Your task to perform on an android device: Open accessibility settings Image 0: 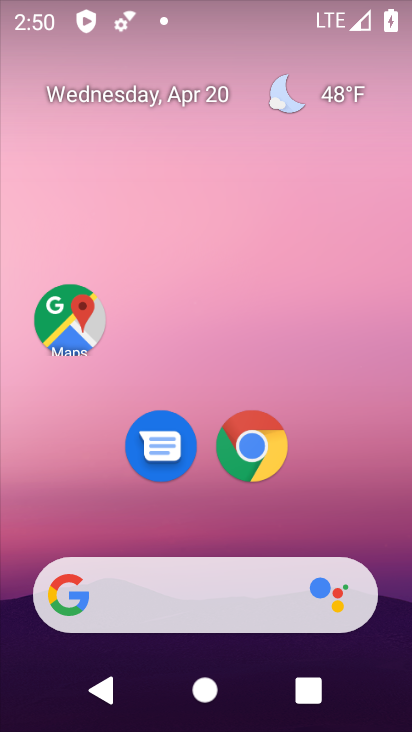
Step 0: drag from (314, 508) to (345, 83)
Your task to perform on an android device: Open accessibility settings Image 1: 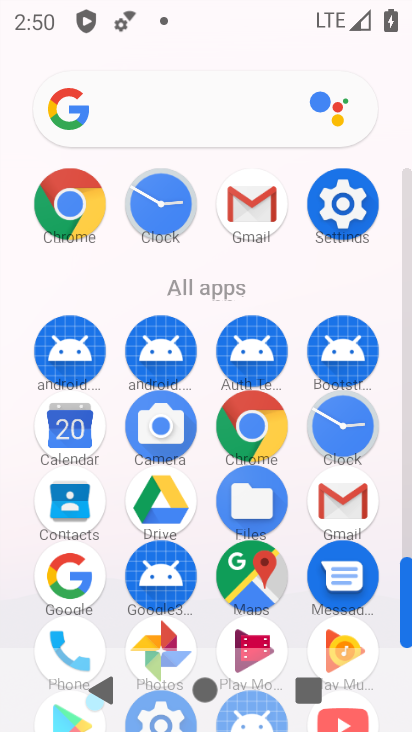
Step 1: click (339, 196)
Your task to perform on an android device: Open accessibility settings Image 2: 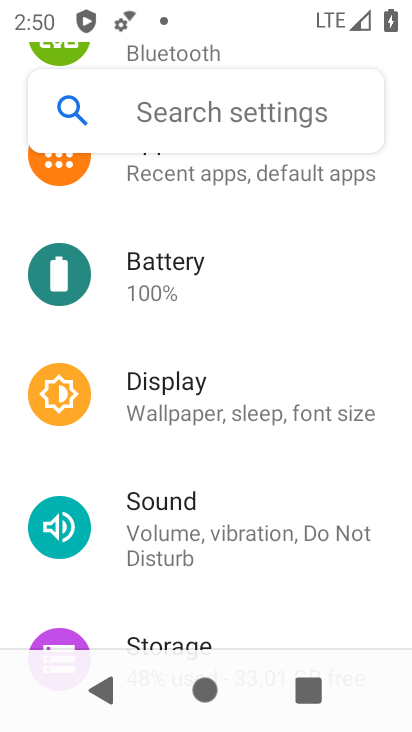
Step 2: drag from (225, 343) to (218, 134)
Your task to perform on an android device: Open accessibility settings Image 3: 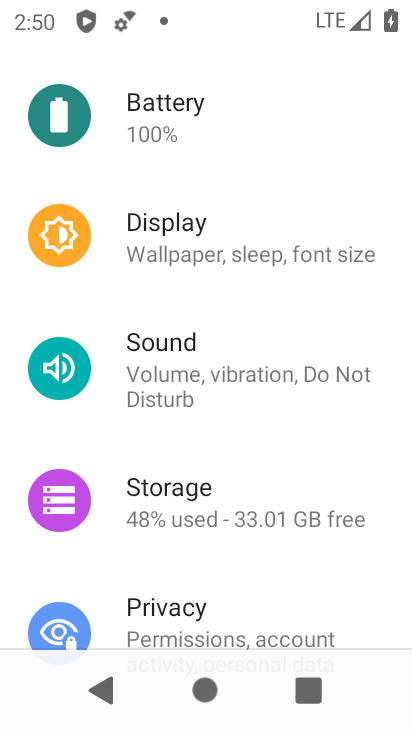
Step 3: drag from (173, 297) to (212, 32)
Your task to perform on an android device: Open accessibility settings Image 4: 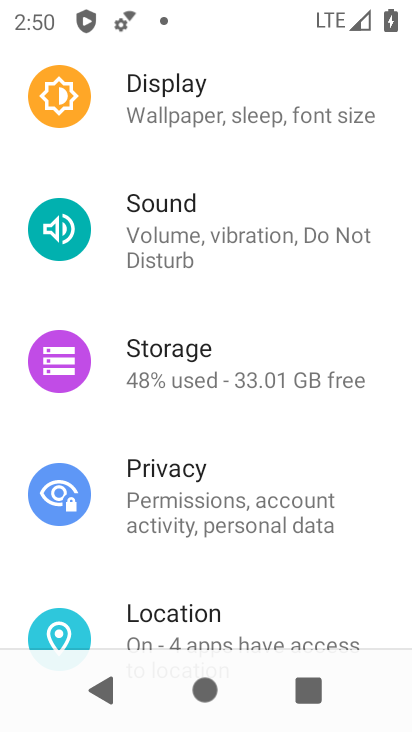
Step 4: drag from (216, 308) to (257, 0)
Your task to perform on an android device: Open accessibility settings Image 5: 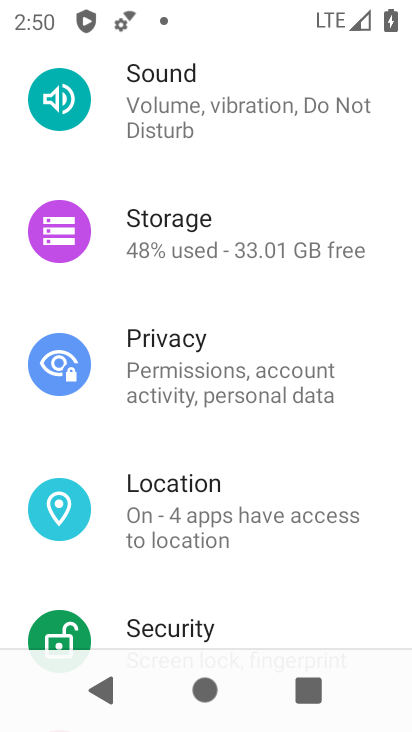
Step 5: drag from (200, 303) to (263, 58)
Your task to perform on an android device: Open accessibility settings Image 6: 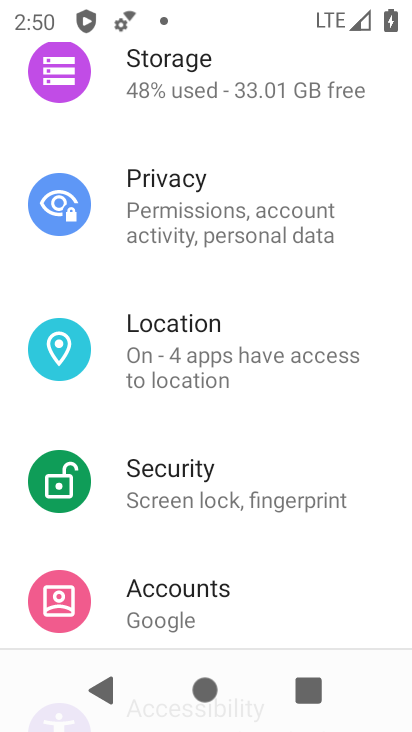
Step 6: drag from (267, 211) to (301, 34)
Your task to perform on an android device: Open accessibility settings Image 7: 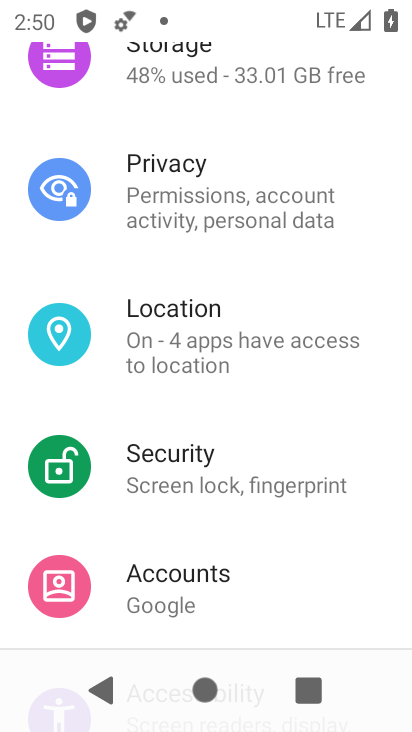
Step 7: drag from (188, 405) to (272, 85)
Your task to perform on an android device: Open accessibility settings Image 8: 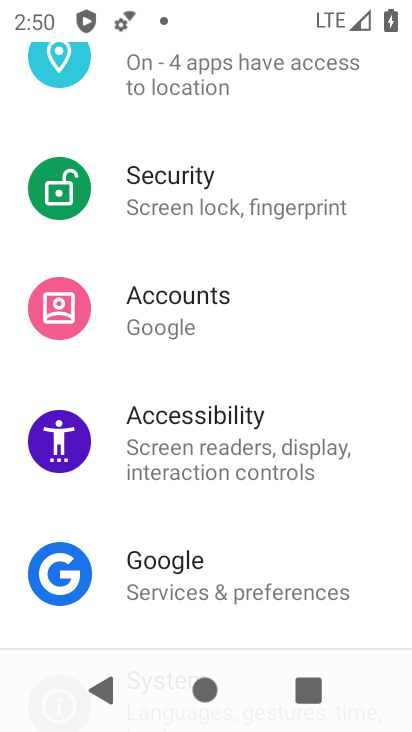
Step 8: click (230, 447)
Your task to perform on an android device: Open accessibility settings Image 9: 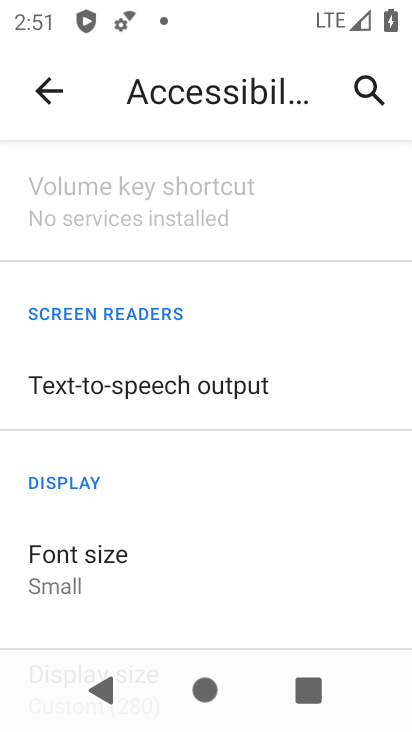
Step 9: task complete